Your task to perform on an android device: Open Wikipedia Image 0: 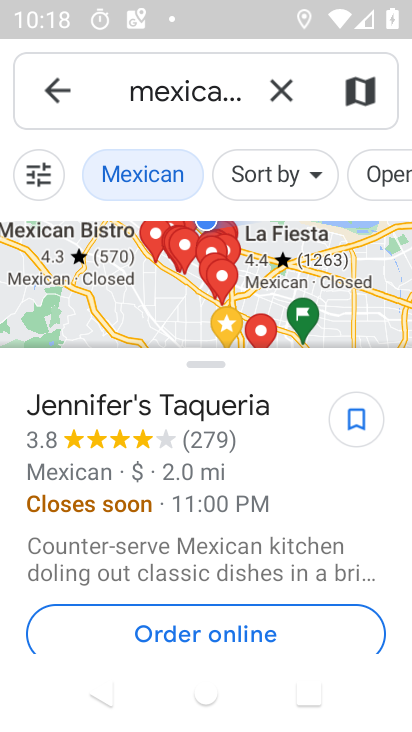
Step 0: press home button
Your task to perform on an android device: Open Wikipedia Image 1: 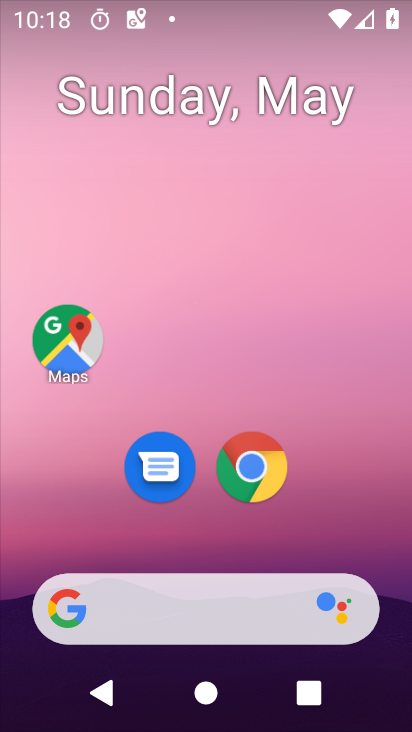
Step 1: click (230, 469)
Your task to perform on an android device: Open Wikipedia Image 2: 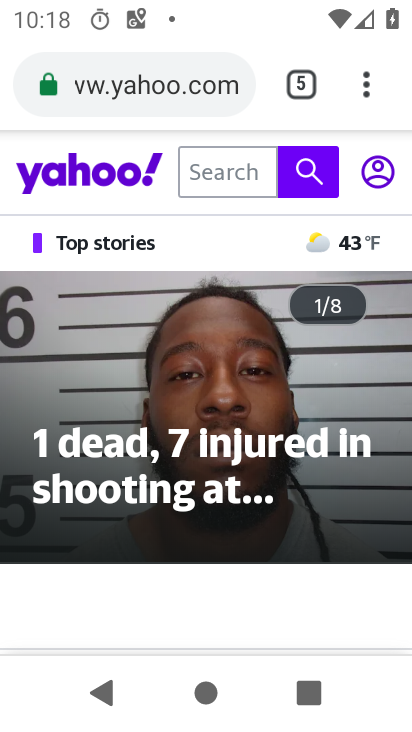
Step 2: click (307, 87)
Your task to perform on an android device: Open Wikipedia Image 3: 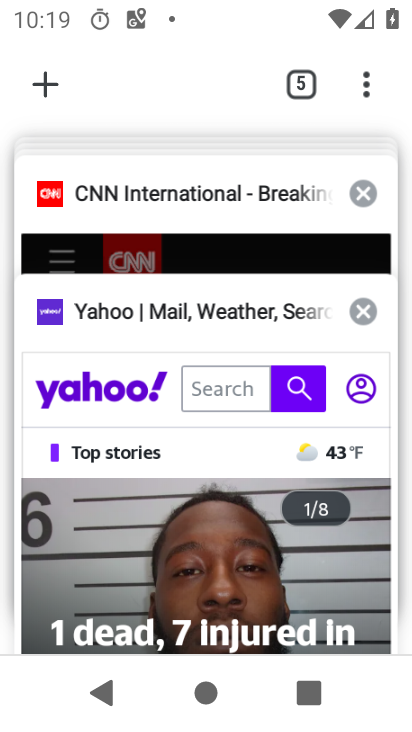
Step 3: drag from (180, 196) to (203, 389)
Your task to perform on an android device: Open Wikipedia Image 4: 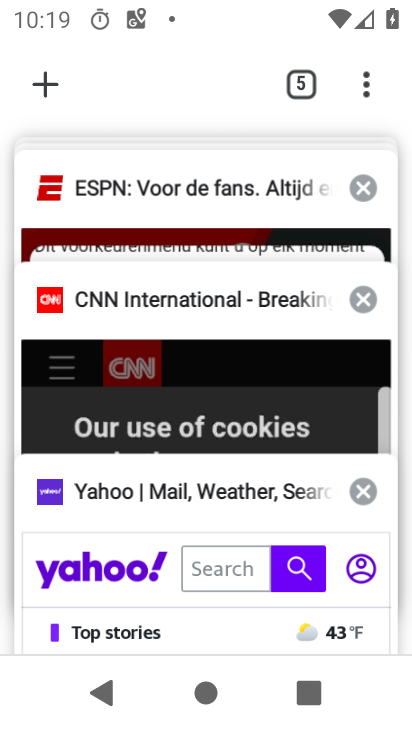
Step 4: drag from (181, 186) to (221, 407)
Your task to perform on an android device: Open Wikipedia Image 5: 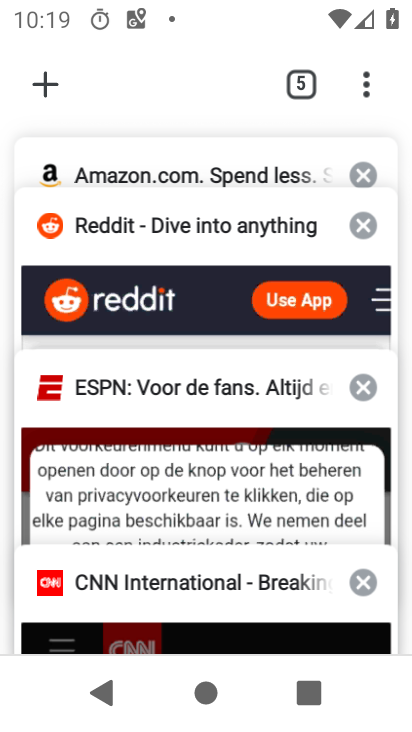
Step 5: drag from (211, 187) to (248, 355)
Your task to perform on an android device: Open Wikipedia Image 6: 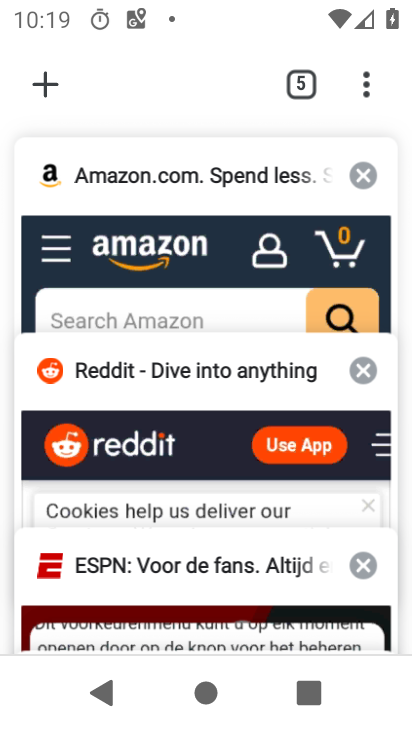
Step 6: drag from (206, 164) to (240, 361)
Your task to perform on an android device: Open Wikipedia Image 7: 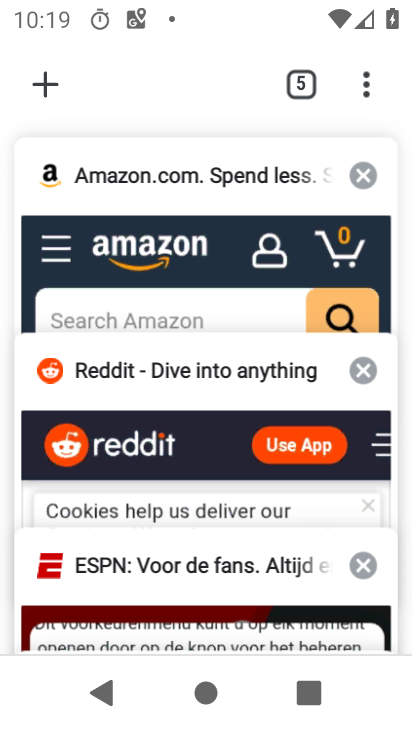
Step 7: drag from (229, 300) to (238, 364)
Your task to perform on an android device: Open Wikipedia Image 8: 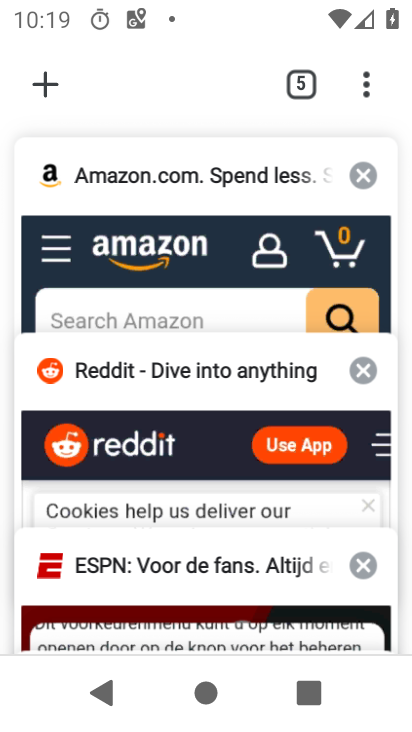
Step 8: click (44, 89)
Your task to perform on an android device: Open Wikipedia Image 9: 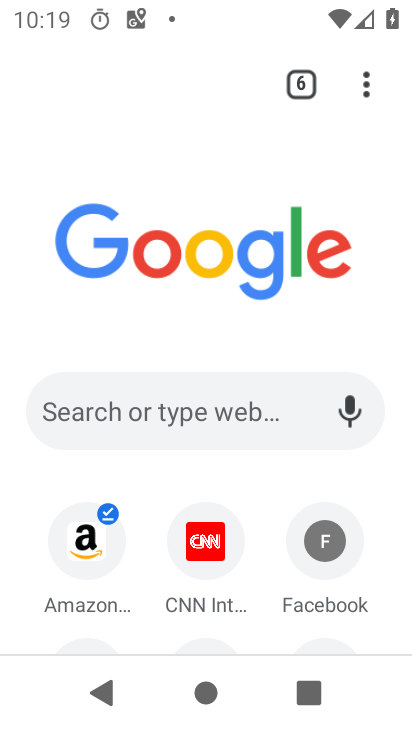
Step 9: click (185, 417)
Your task to perform on an android device: Open Wikipedia Image 10: 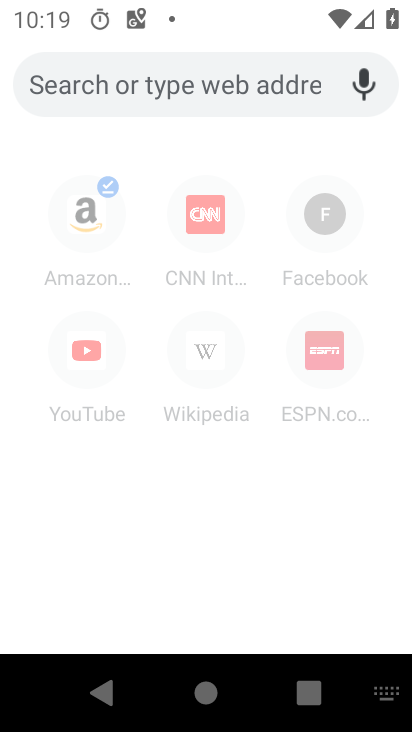
Step 10: click (195, 355)
Your task to perform on an android device: Open Wikipedia Image 11: 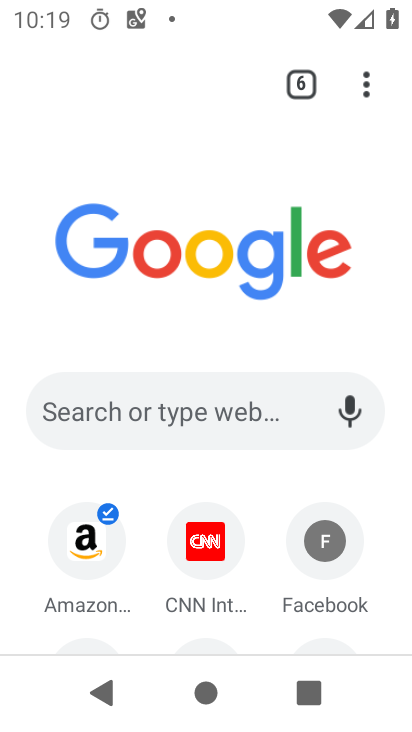
Step 11: drag from (190, 440) to (225, 153)
Your task to perform on an android device: Open Wikipedia Image 12: 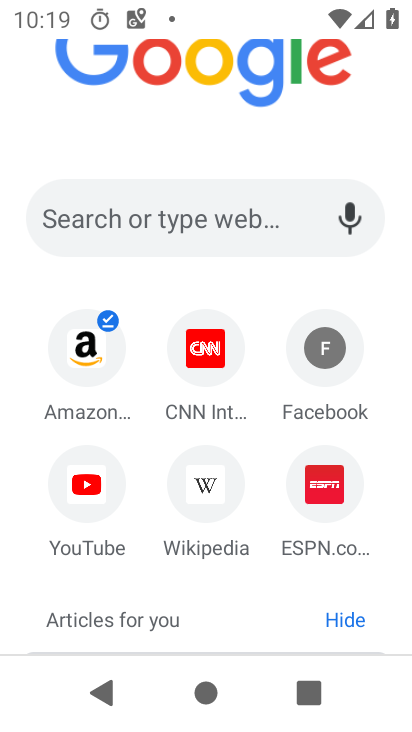
Step 12: click (209, 502)
Your task to perform on an android device: Open Wikipedia Image 13: 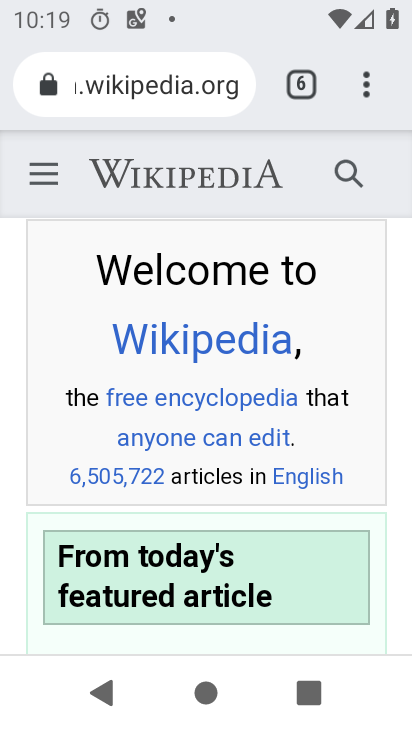
Step 13: task complete